Your task to perform on an android device: Open the map Image 0: 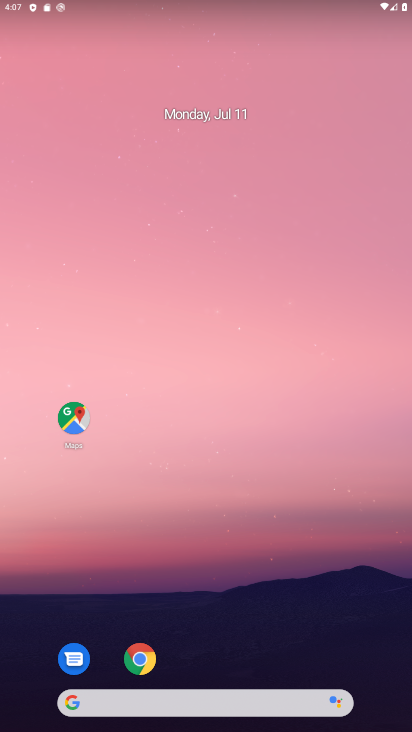
Step 0: click (66, 402)
Your task to perform on an android device: Open the map Image 1: 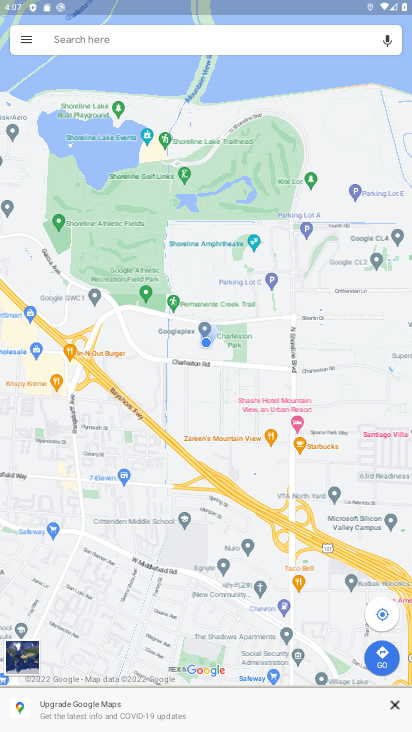
Step 1: task complete